Your task to perform on an android device: Clear the cart on newegg.com. Add usb-b to the cart on newegg.com, then select checkout. Image 0: 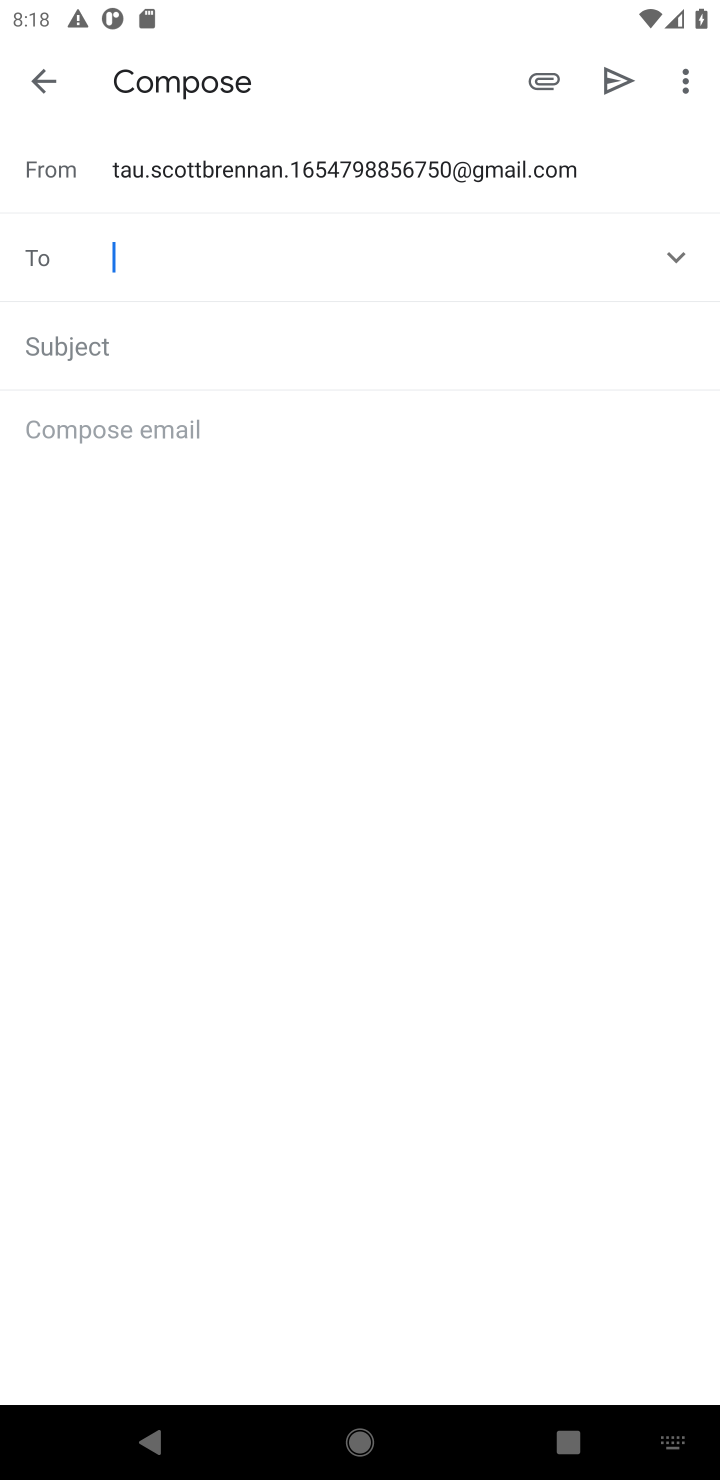
Step 0: press home button
Your task to perform on an android device: Clear the cart on newegg.com. Add usb-b to the cart on newegg.com, then select checkout. Image 1: 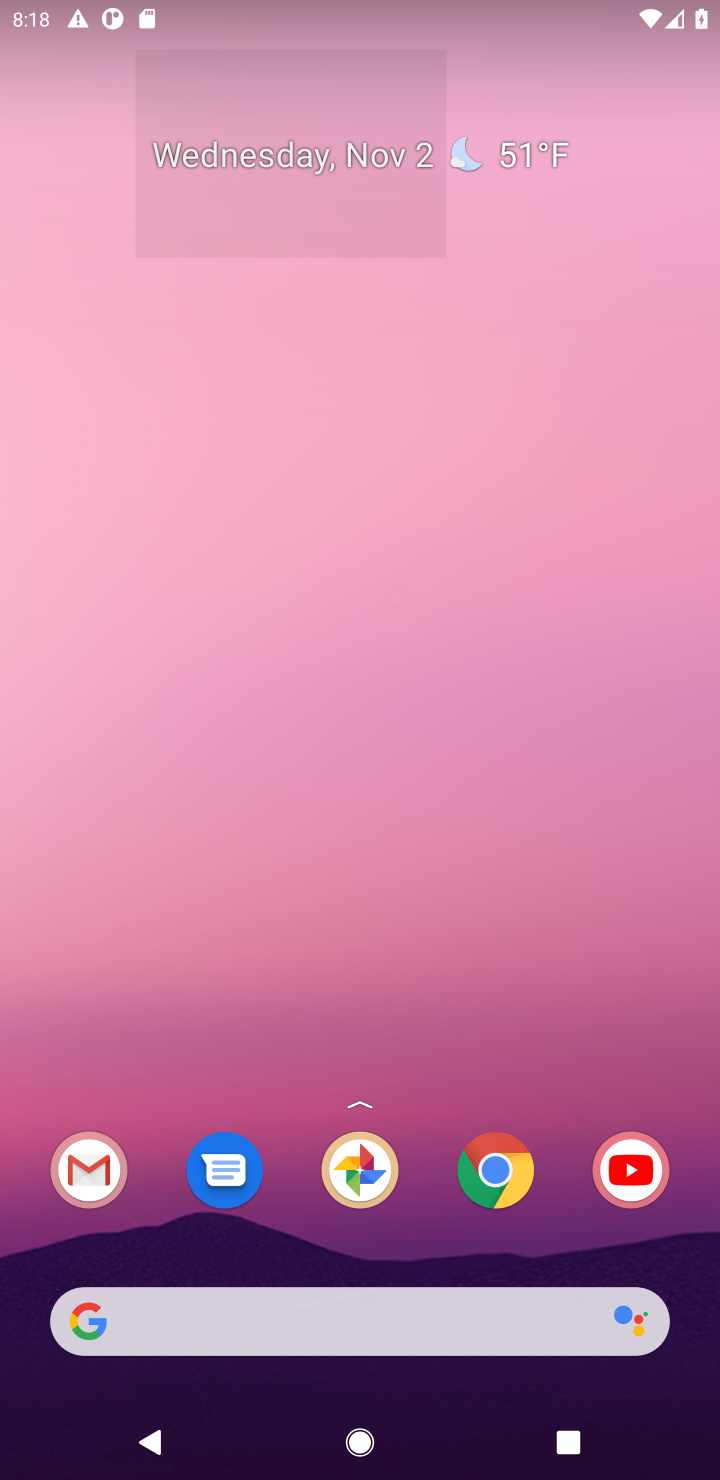
Step 1: click (495, 1179)
Your task to perform on an android device: Clear the cart on newegg.com. Add usb-b to the cart on newegg.com, then select checkout. Image 2: 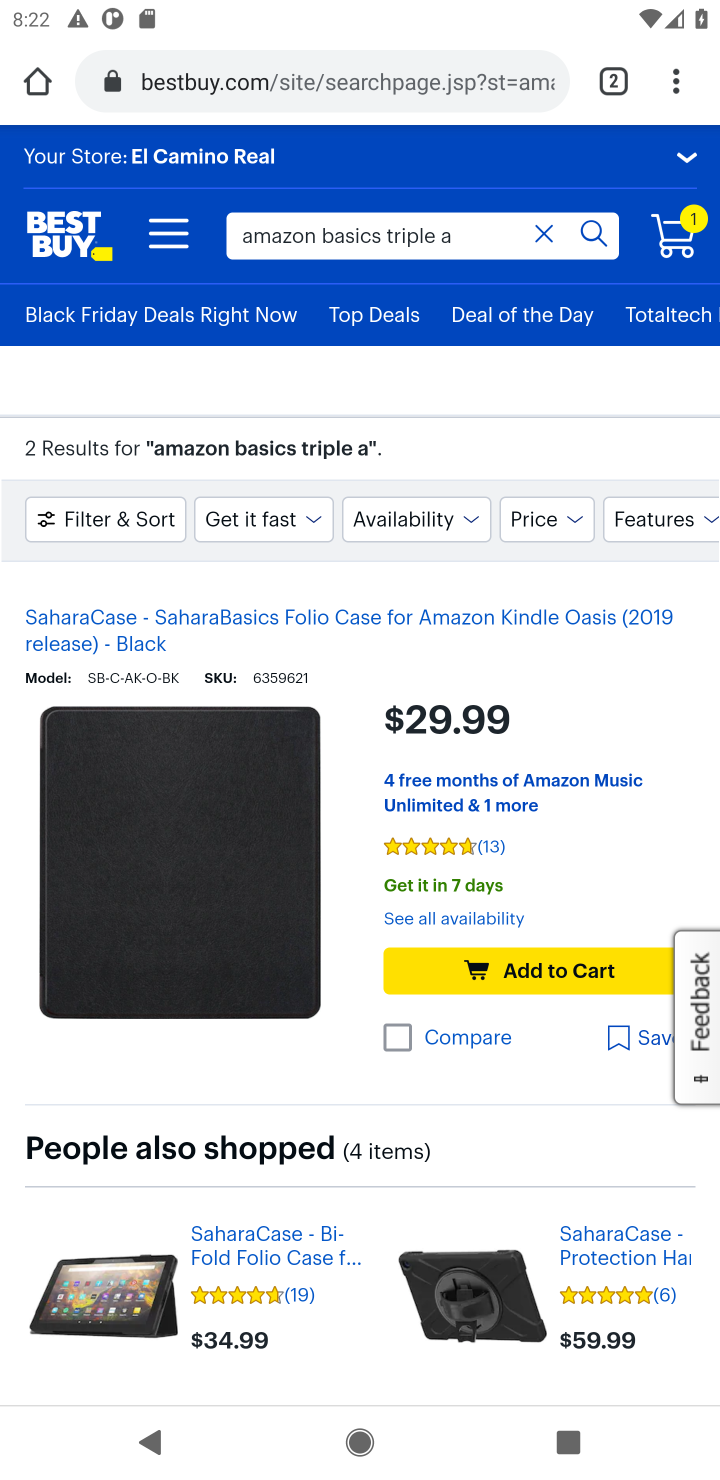
Step 2: click (435, 66)
Your task to perform on an android device: Clear the cart on newegg.com. Add usb-b to the cart on newegg.com, then select checkout. Image 3: 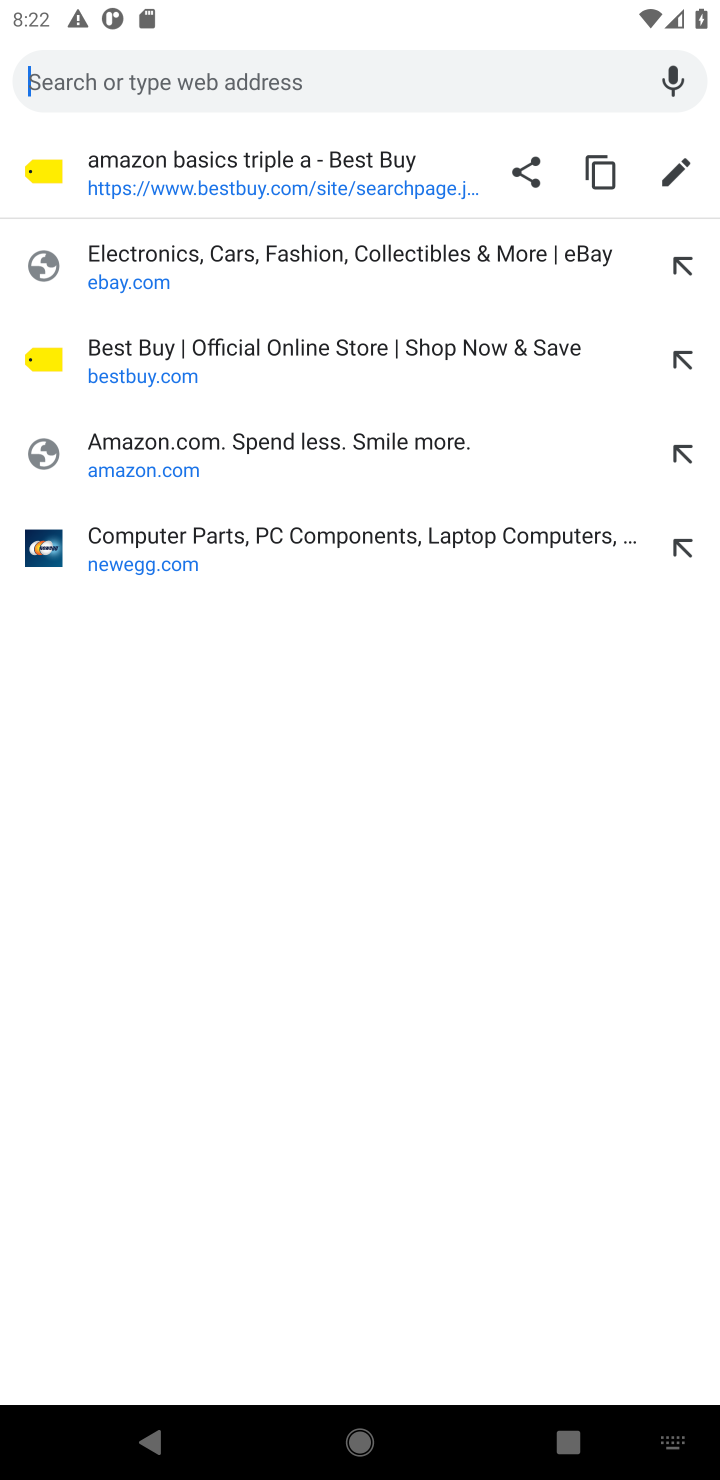
Step 3: type "newegg.com"
Your task to perform on an android device: Clear the cart on newegg.com. Add usb-b to the cart on newegg.com, then select checkout. Image 4: 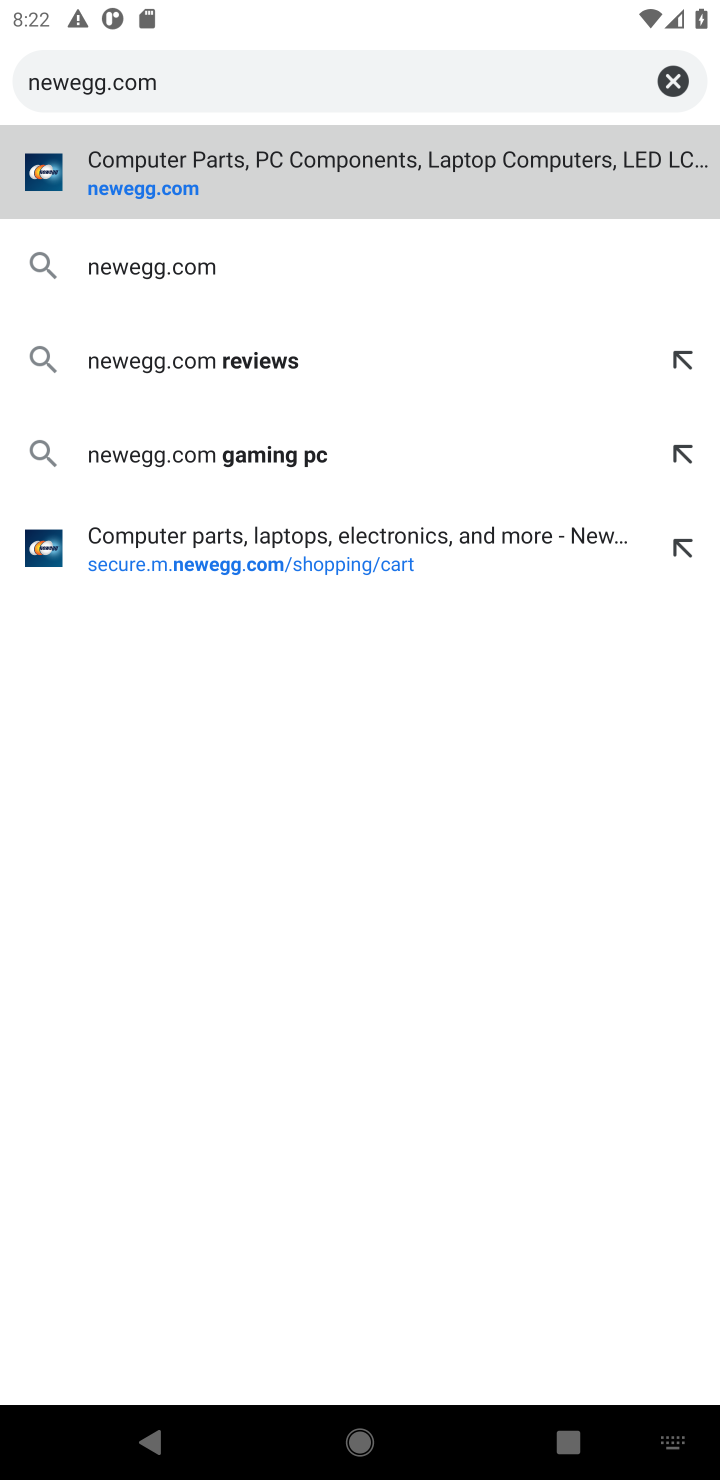
Step 4: press enter
Your task to perform on an android device: Clear the cart on newegg.com. Add usb-b to the cart on newegg.com, then select checkout. Image 5: 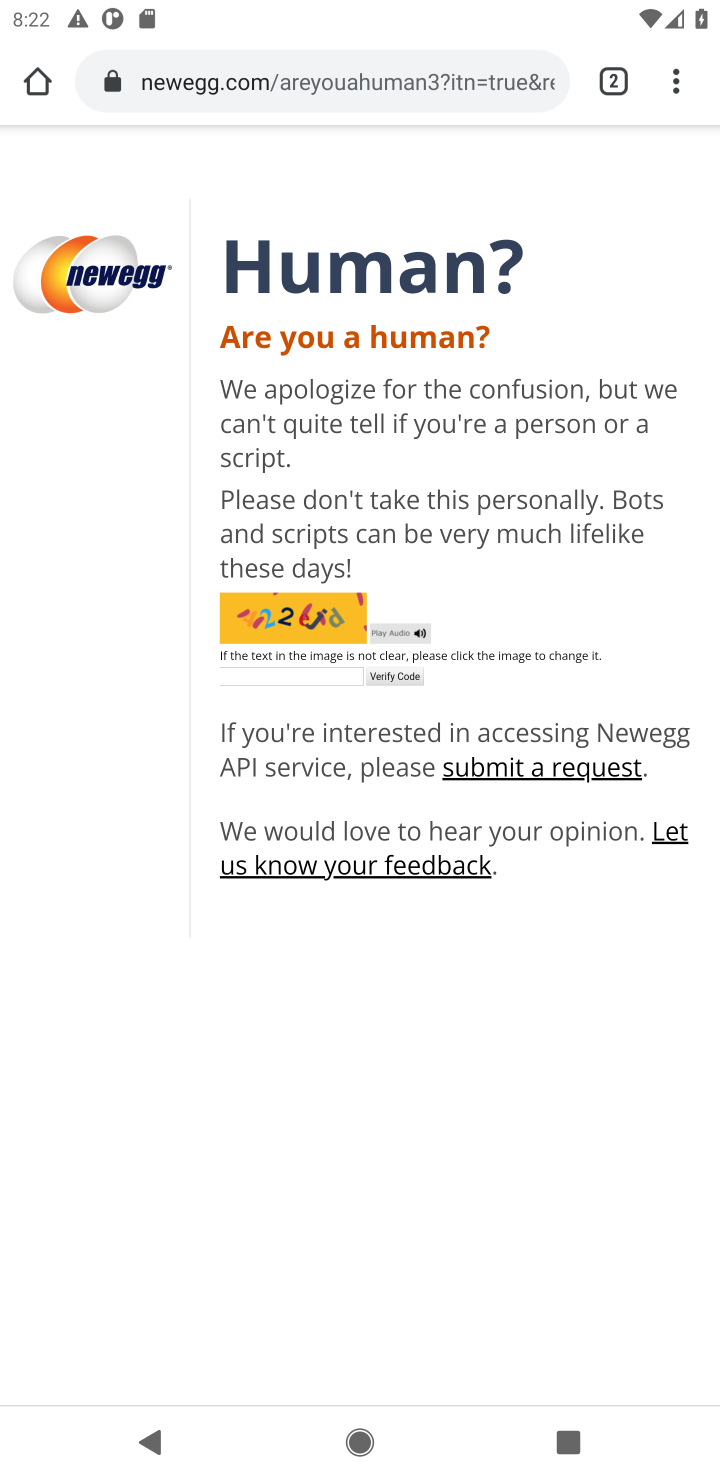
Step 5: task complete